Your task to perform on an android device: Open the phone app and click the voicemail tab. Image 0: 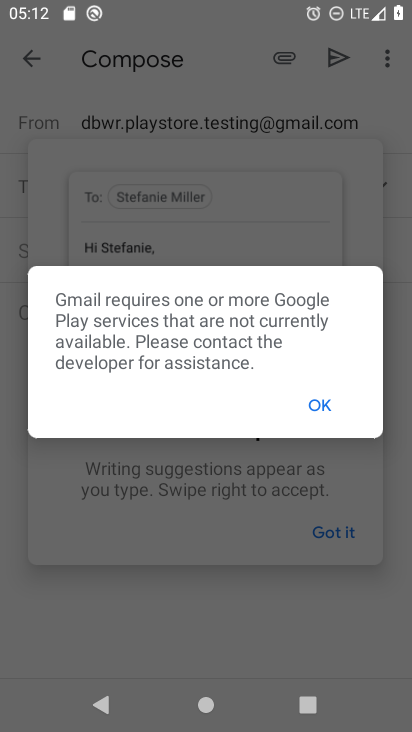
Step 0: press home button
Your task to perform on an android device: Open the phone app and click the voicemail tab. Image 1: 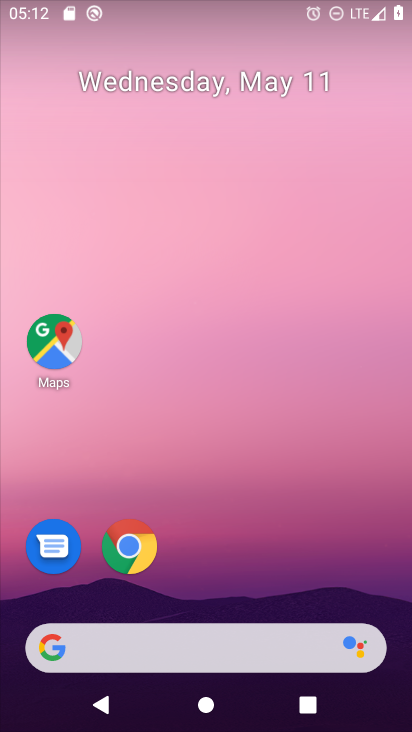
Step 1: drag from (288, 635) to (245, 19)
Your task to perform on an android device: Open the phone app and click the voicemail tab. Image 2: 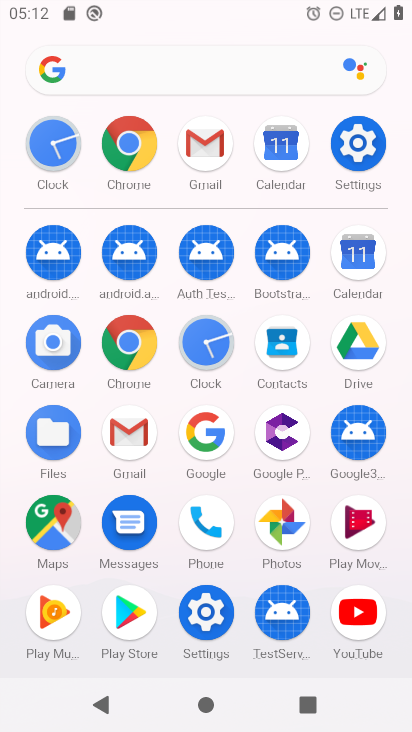
Step 2: click (202, 544)
Your task to perform on an android device: Open the phone app and click the voicemail tab. Image 3: 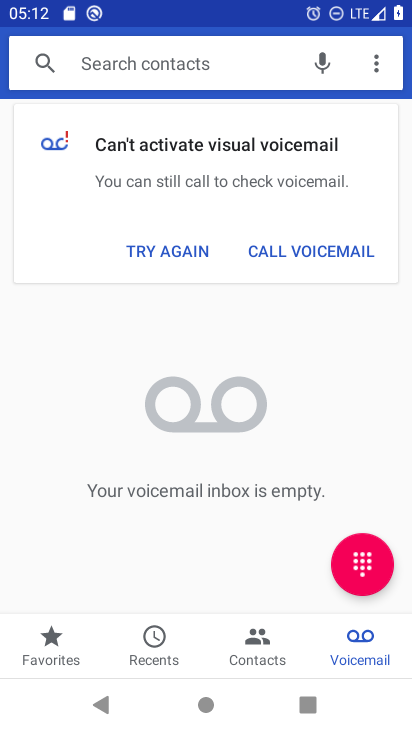
Step 3: click (363, 655)
Your task to perform on an android device: Open the phone app and click the voicemail tab. Image 4: 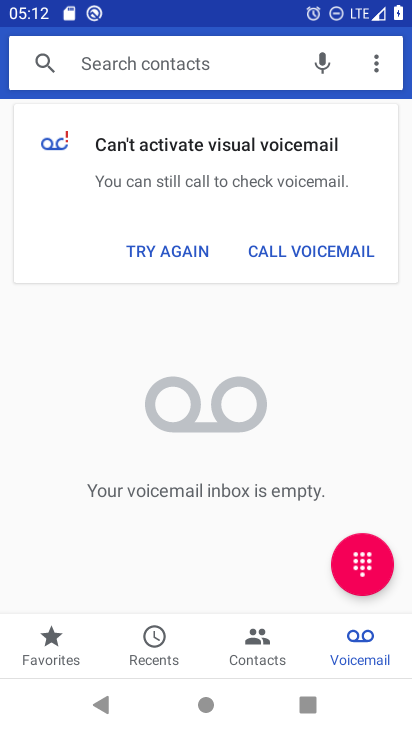
Step 4: task complete